Your task to perform on an android device: check storage Image 0: 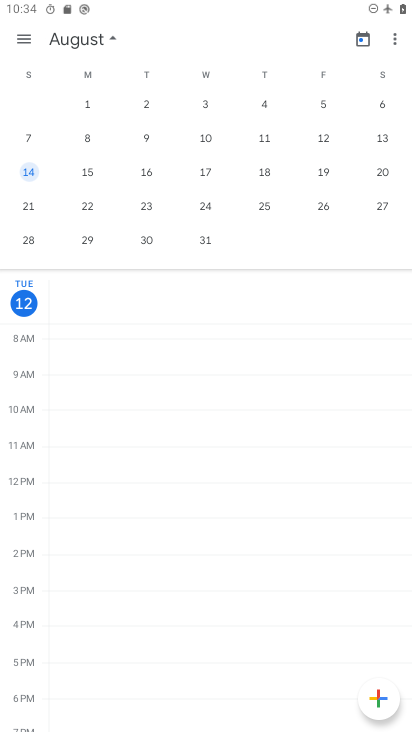
Step 0: press home button
Your task to perform on an android device: check storage Image 1: 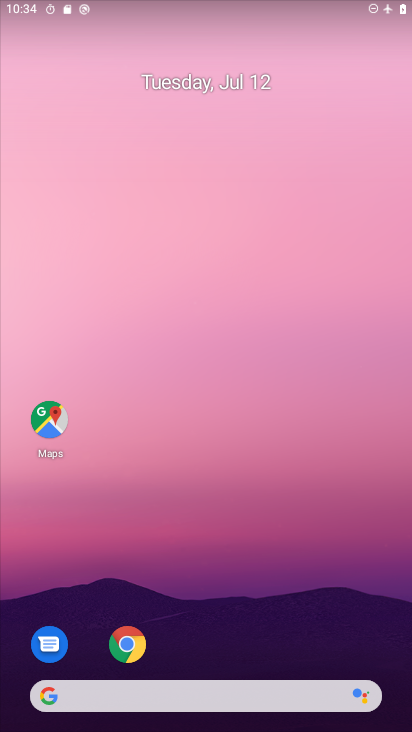
Step 1: drag from (184, 636) to (174, 168)
Your task to perform on an android device: check storage Image 2: 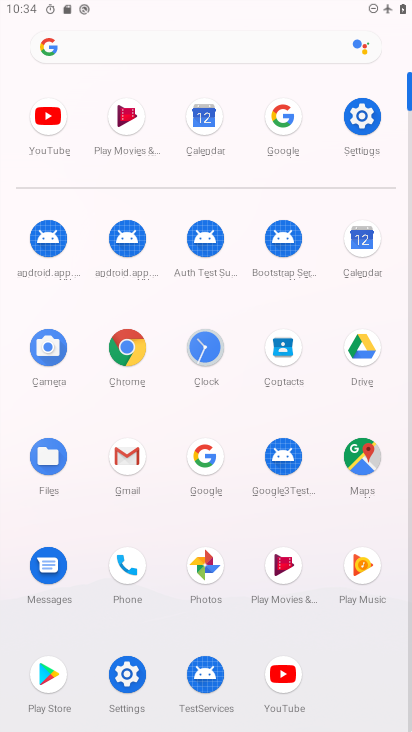
Step 2: click (364, 135)
Your task to perform on an android device: check storage Image 3: 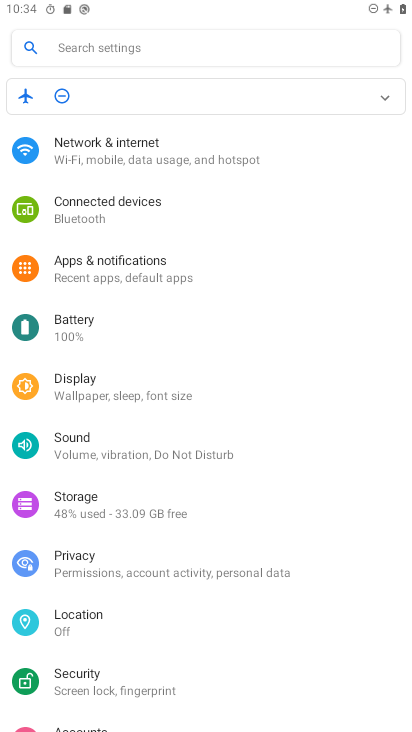
Step 3: click (134, 506)
Your task to perform on an android device: check storage Image 4: 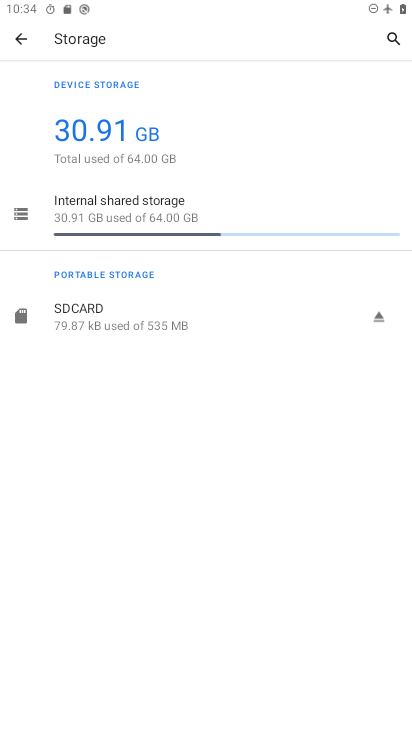
Step 4: click (166, 228)
Your task to perform on an android device: check storage Image 5: 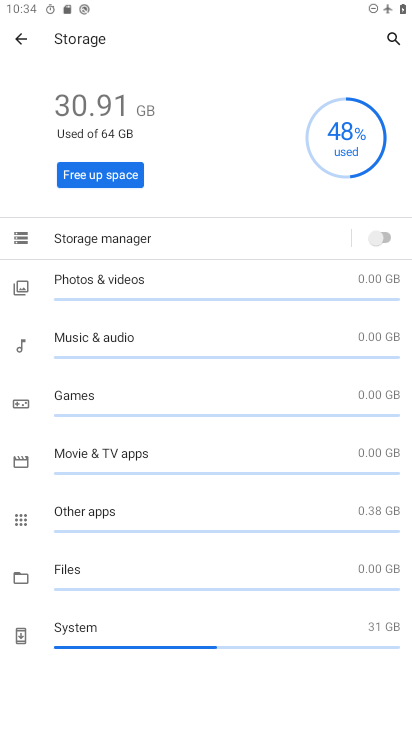
Step 5: task complete